Your task to perform on an android device: toggle javascript in the chrome app Image 0: 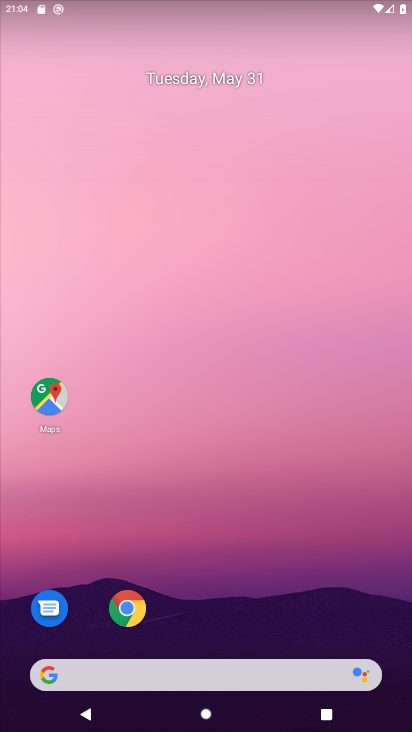
Step 0: click (125, 607)
Your task to perform on an android device: toggle javascript in the chrome app Image 1: 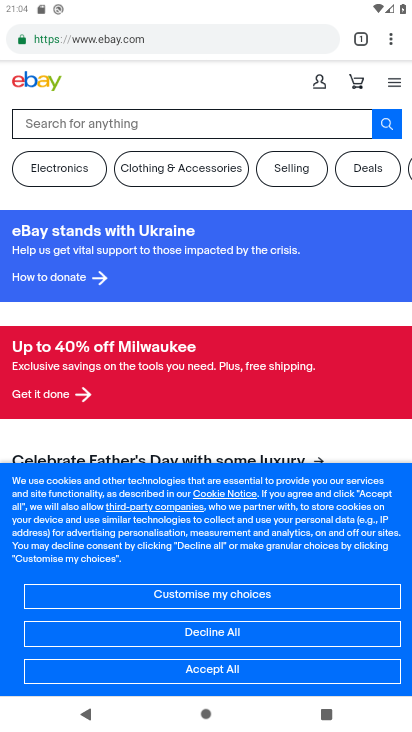
Step 1: click (391, 41)
Your task to perform on an android device: toggle javascript in the chrome app Image 2: 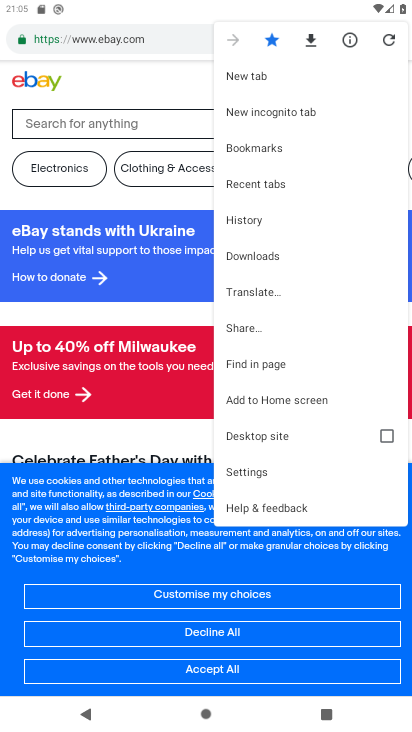
Step 2: click (258, 475)
Your task to perform on an android device: toggle javascript in the chrome app Image 3: 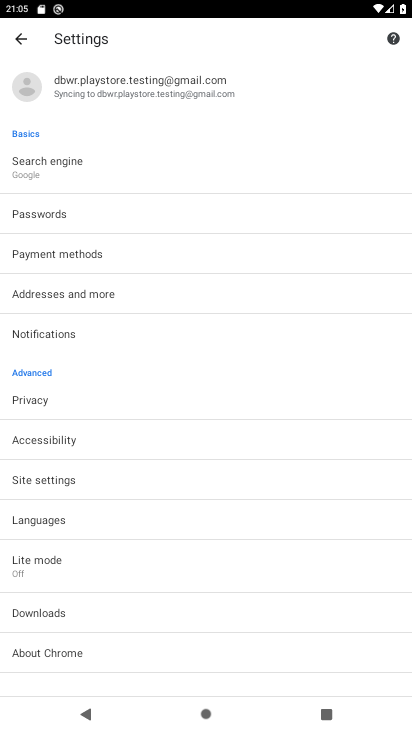
Step 3: click (58, 479)
Your task to perform on an android device: toggle javascript in the chrome app Image 4: 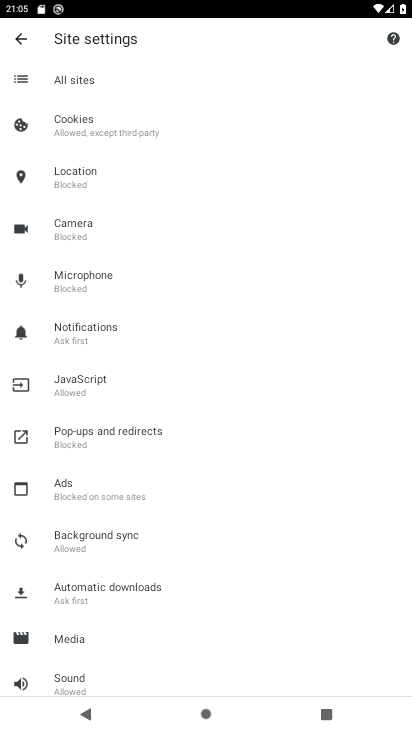
Step 4: click (85, 376)
Your task to perform on an android device: toggle javascript in the chrome app Image 5: 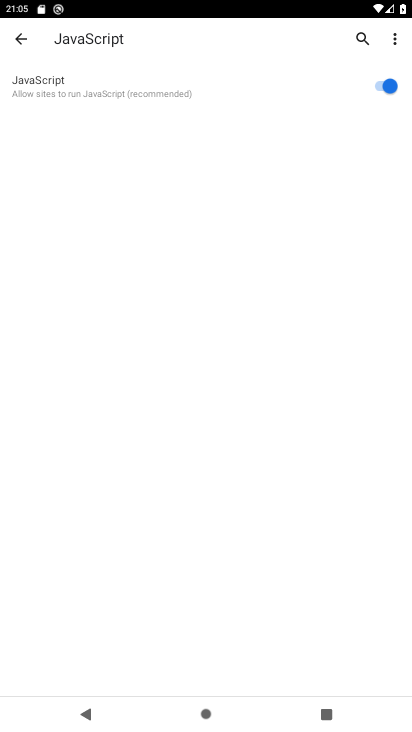
Step 5: click (381, 87)
Your task to perform on an android device: toggle javascript in the chrome app Image 6: 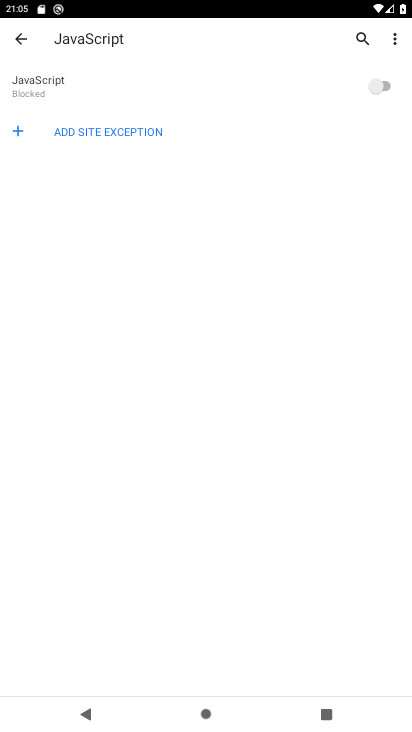
Step 6: task complete